Your task to perform on an android device: Show me recent news Image 0: 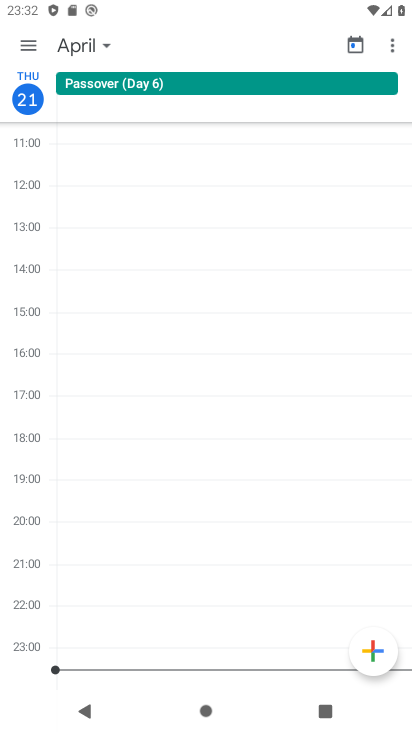
Step 0: press home button
Your task to perform on an android device: Show me recent news Image 1: 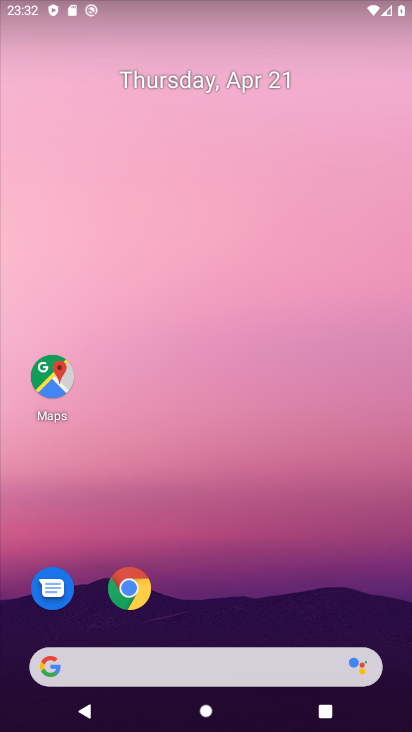
Step 1: click (208, 673)
Your task to perform on an android device: Show me recent news Image 2: 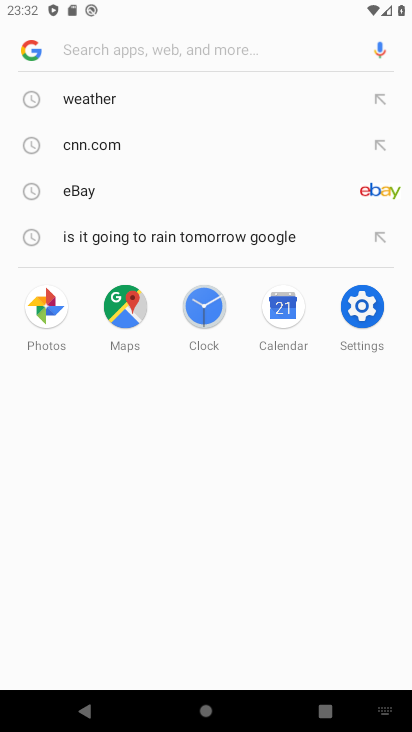
Step 2: type "recent news"
Your task to perform on an android device: Show me recent news Image 3: 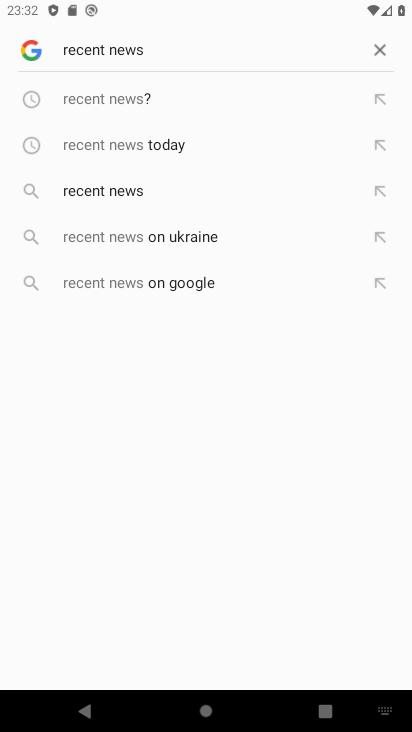
Step 3: click (111, 188)
Your task to perform on an android device: Show me recent news Image 4: 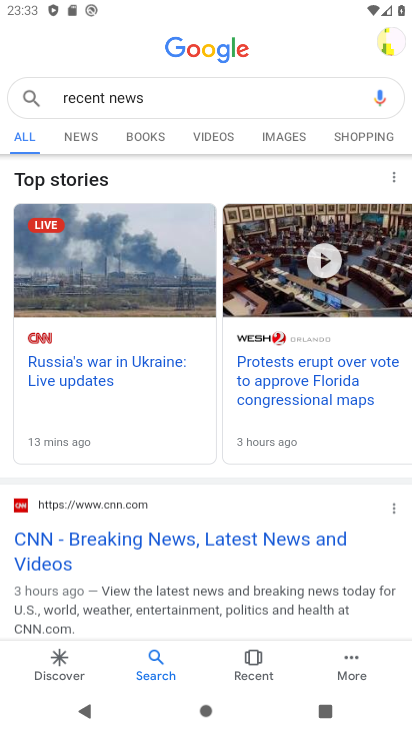
Step 4: task complete